Your task to perform on an android device: Do I have any events this weekend? Image 0: 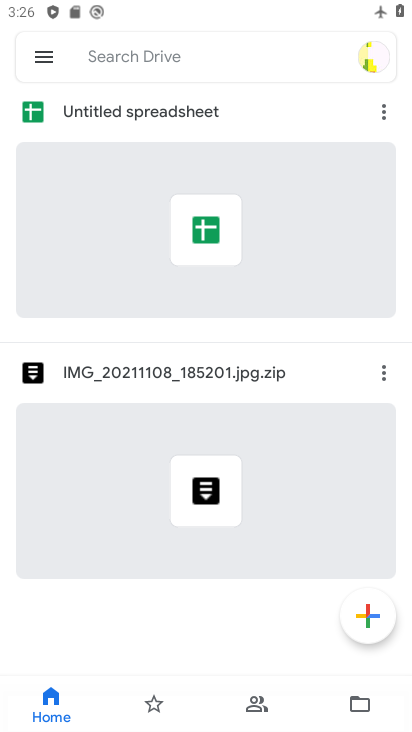
Step 0: press back button
Your task to perform on an android device: Do I have any events this weekend? Image 1: 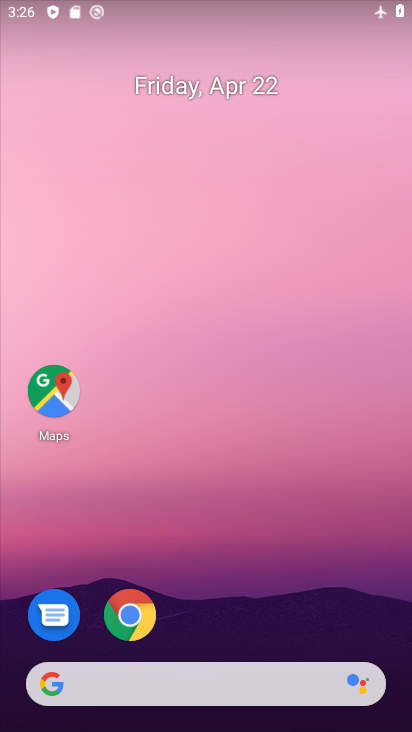
Step 1: drag from (207, 641) to (246, 340)
Your task to perform on an android device: Do I have any events this weekend? Image 2: 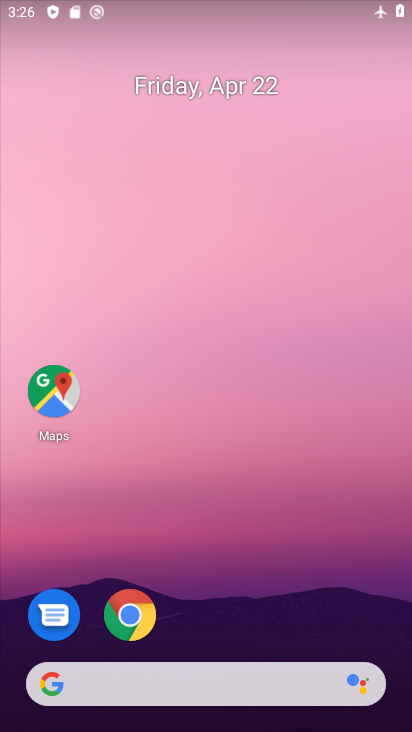
Step 2: drag from (233, 466) to (237, 334)
Your task to perform on an android device: Do I have any events this weekend? Image 3: 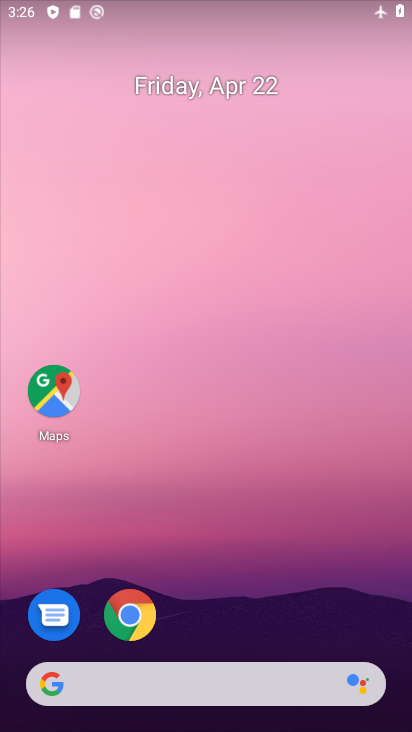
Step 3: drag from (224, 573) to (282, 142)
Your task to perform on an android device: Do I have any events this weekend? Image 4: 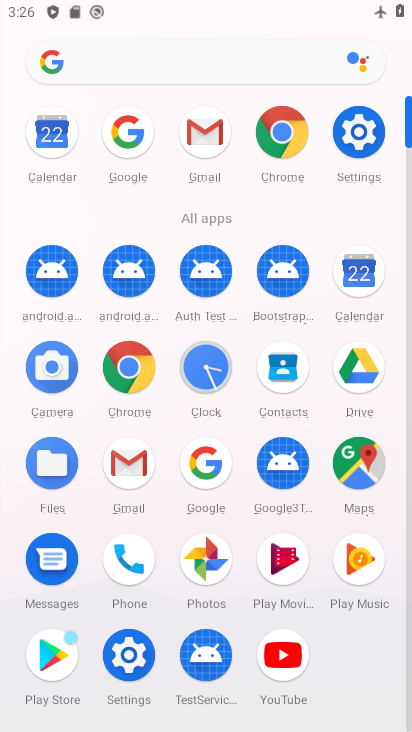
Step 4: click (363, 281)
Your task to perform on an android device: Do I have any events this weekend? Image 5: 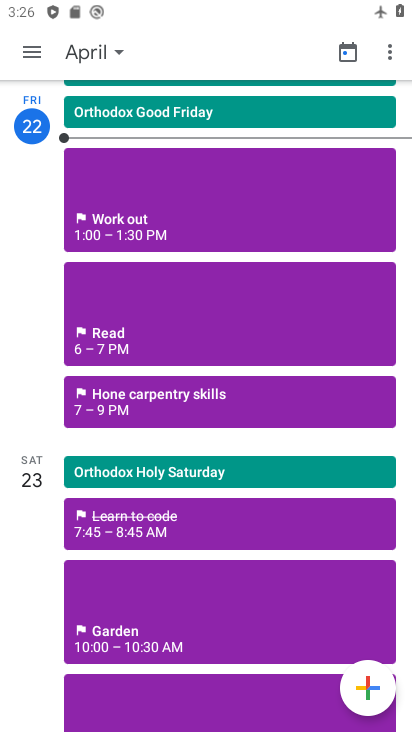
Step 5: task complete